Your task to perform on an android device: Add jbl flip 4 to the cart on ebay.com, then select checkout. Image 0: 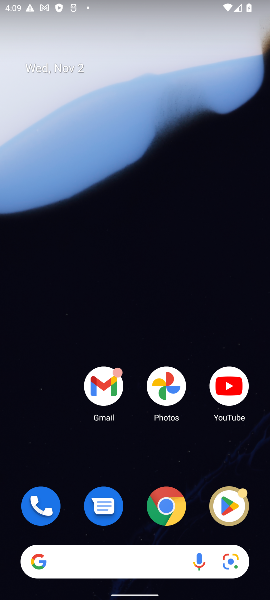
Step 0: click (164, 507)
Your task to perform on an android device: Add jbl flip 4 to the cart on ebay.com, then select checkout. Image 1: 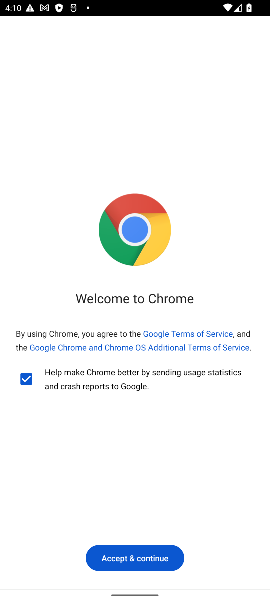
Step 1: click (148, 560)
Your task to perform on an android device: Add jbl flip 4 to the cart on ebay.com, then select checkout. Image 2: 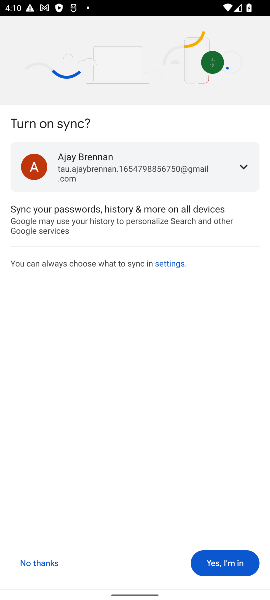
Step 2: click (222, 564)
Your task to perform on an android device: Add jbl flip 4 to the cart on ebay.com, then select checkout. Image 3: 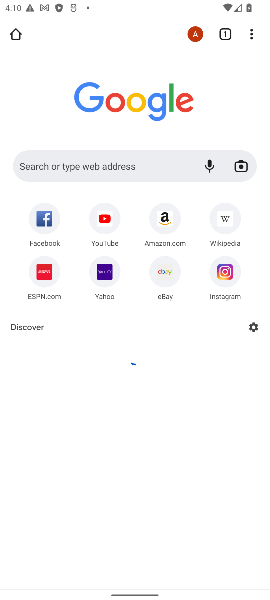
Step 3: click (136, 176)
Your task to perform on an android device: Add jbl flip 4 to the cart on ebay.com, then select checkout. Image 4: 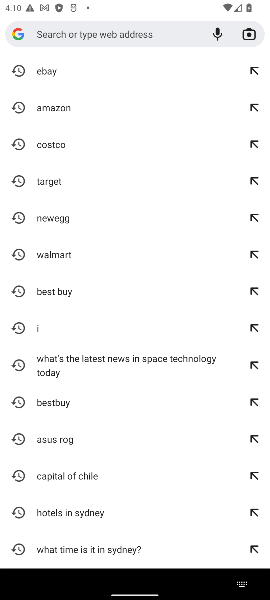
Step 4: type "ebay.com"
Your task to perform on an android device: Add jbl flip 4 to the cart on ebay.com, then select checkout. Image 5: 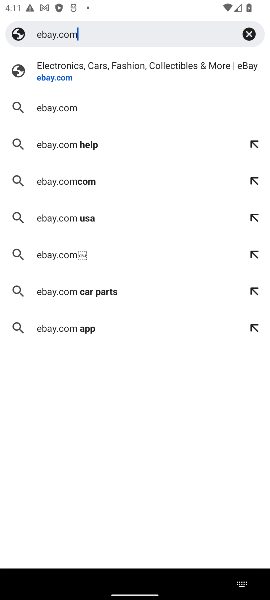
Step 5: click (159, 73)
Your task to perform on an android device: Add jbl flip 4 to the cart on ebay.com, then select checkout. Image 6: 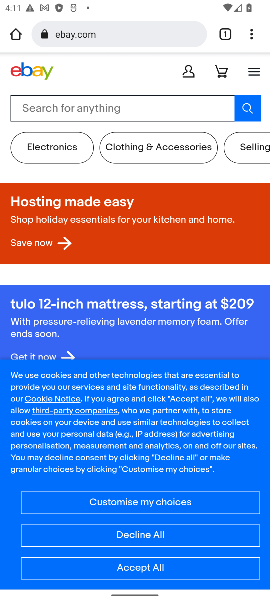
Step 6: click (163, 574)
Your task to perform on an android device: Add jbl flip 4 to the cart on ebay.com, then select checkout. Image 7: 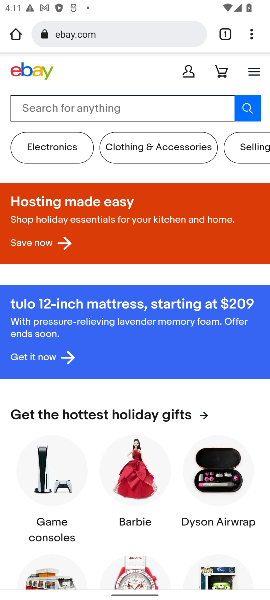
Step 7: click (136, 112)
Your task to perform on an android device: Add jbl flip 4 to the cart on ebay.com, then select checkout. Image 8: 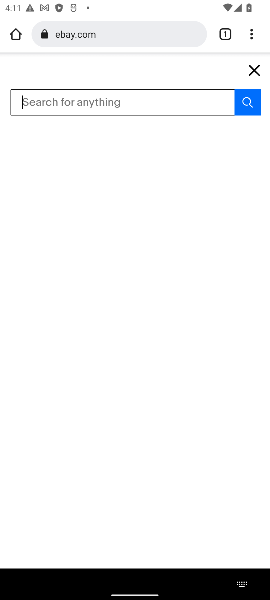
Step 8: type "jbl flip 4"
Your task to perform on an android device: Add jbl flip 4 to the cart on ebay.com, then select checkout. Image 9: 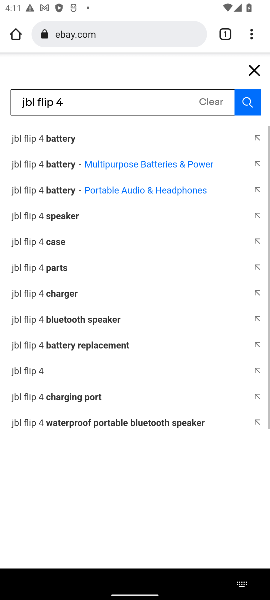
Step 9: press enter
Your task to perform on an android device: Add jbl flip 4 to the cart on ebay.com, then select checkout. Image 10: 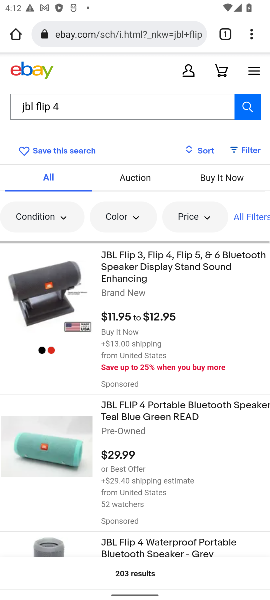
Step 10: click (59, 460)
Your task to perform on an android device: Add jbl flip 4 to the cart on ebay.com, then select checkout. Image 11: 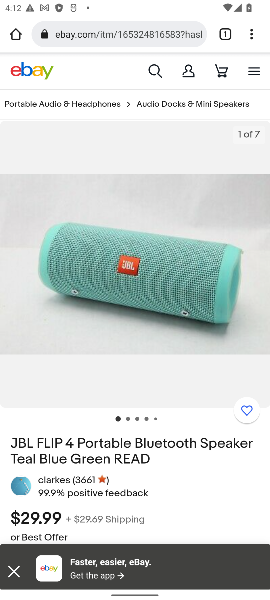
Step 11: task complete